Your task to perform on an android device: Open Google Maps Image 0: 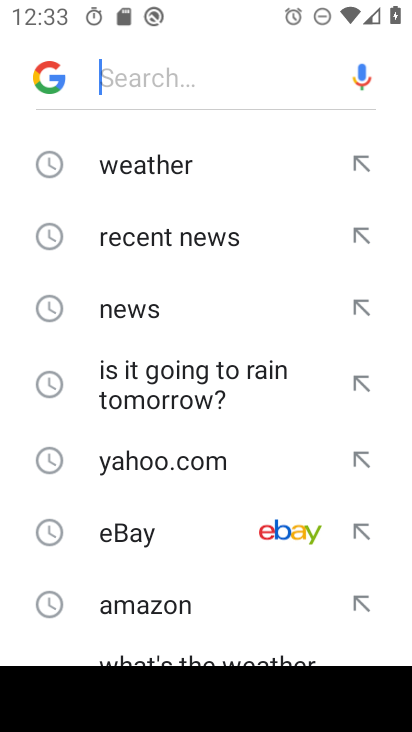
Step 0: press back button
Your task to perform on an android device: Open Google Maps Image 1: 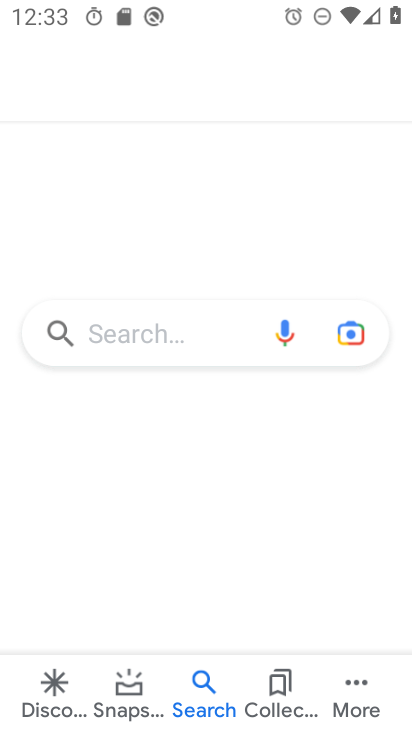
Step 1: press home button
Your task to perform on an android device: Open Google Maps Image 2: 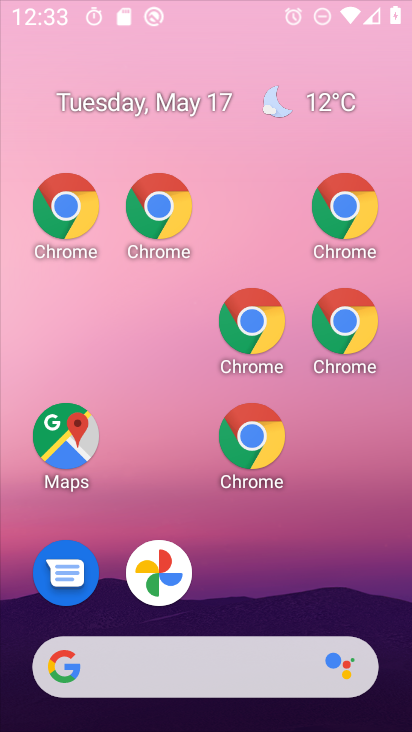
Step 2: drag from (352, 666) to (254, 151)
Your task to perform on an android device: Open Google Maps Image 3: 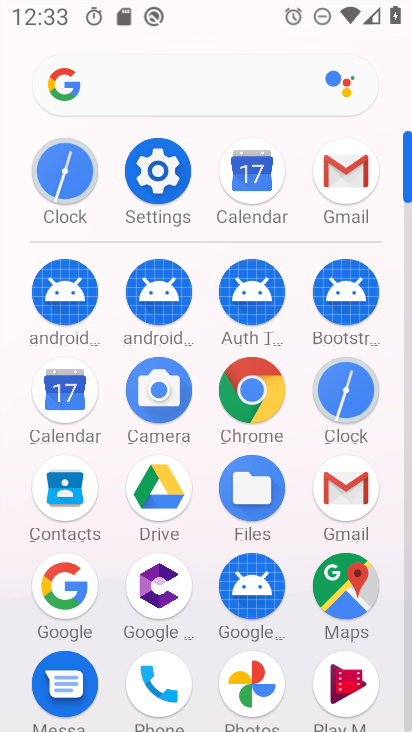
Step 3: click (315, 597)
Your task to perform on an android device: Open Google Maps Image 4: 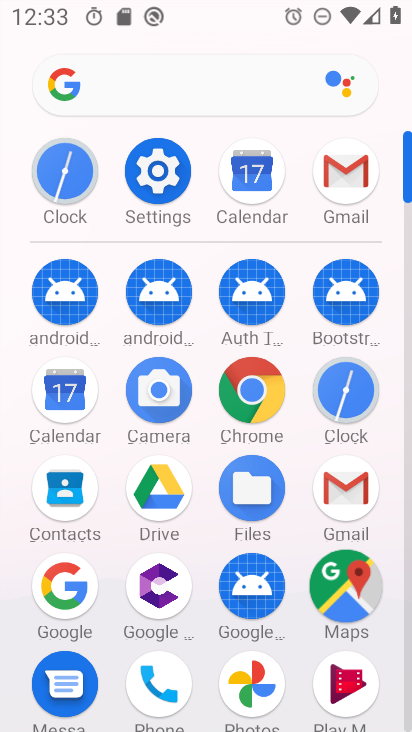
Step 4: click (340, 582)
Your task to perform on an android device: Open Google Maps Image 5: 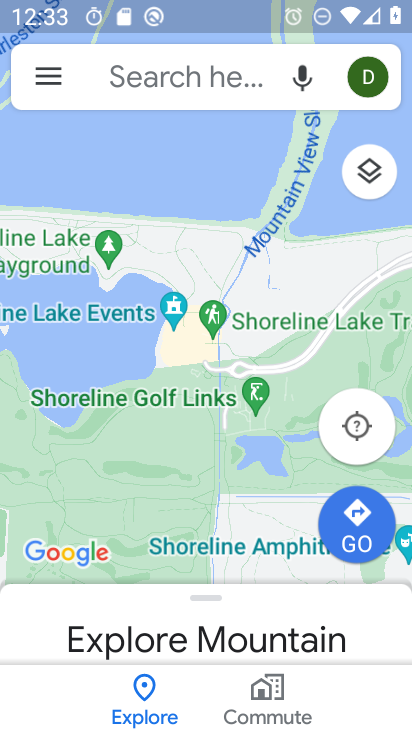
Step 5: task complete